Your task to perform on an android device: What's on my calendar today? Image 0: 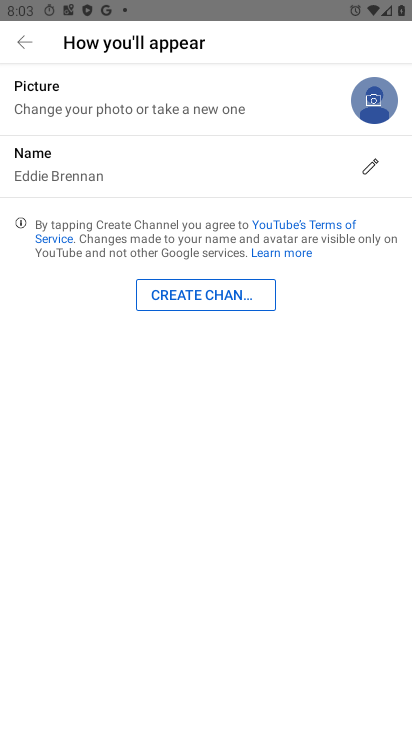
Step 0: press home button
Your task to perform on an android device: What's on my calendar today? Image 1: 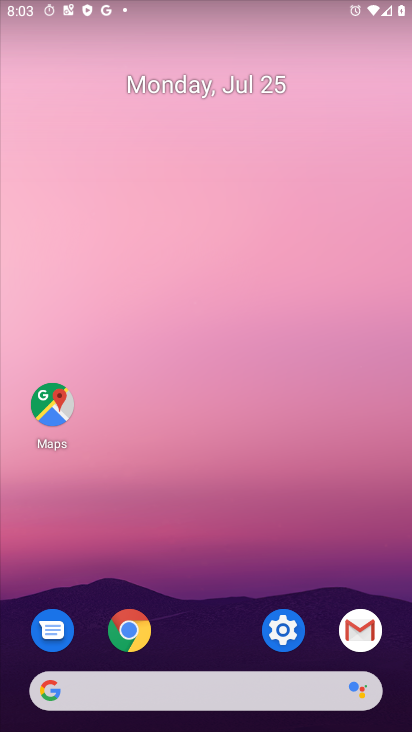
Step 1: drag from (293, 729) to (238, 332)
Your task to perform on an android device: What's on my calendar today? Image 2: 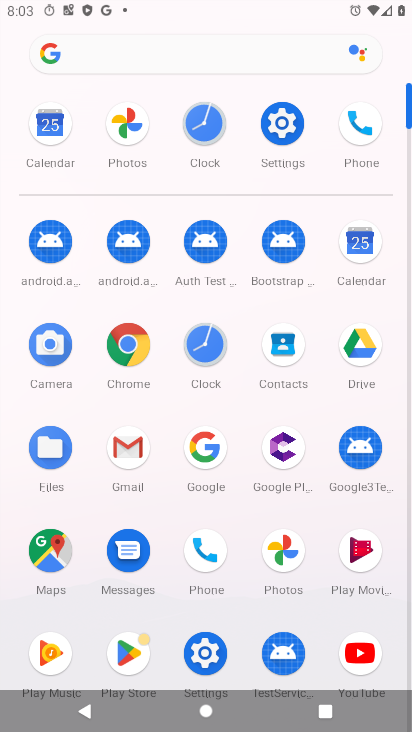
Step 2: click (350, 254)
Your task to perform on an android device: What's on my calendar today? Image 3: 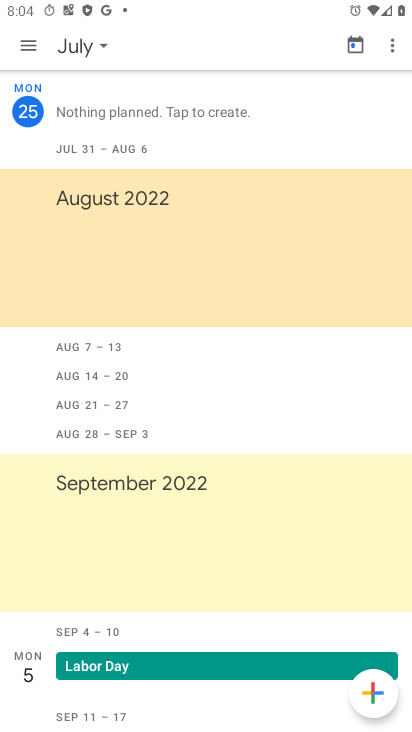
Step 3: task complete